Your task to perform on an android device: Go to notification settings Image 0: 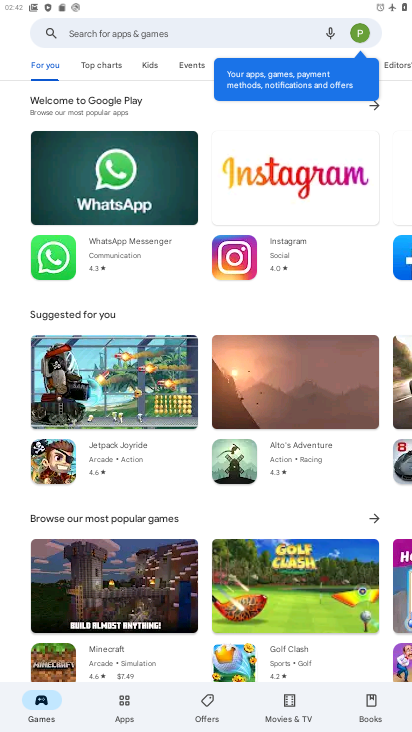
Step 0: press home button
Your task to perform on an android device: Go to notification settings Image 1: 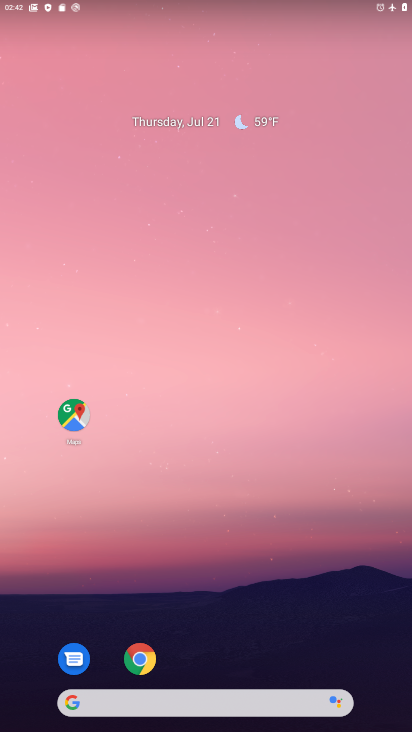
Step 1: drag from (290, 633) to (229, 54)
Your task to perform on an android device: Go to notification settings Image 2: 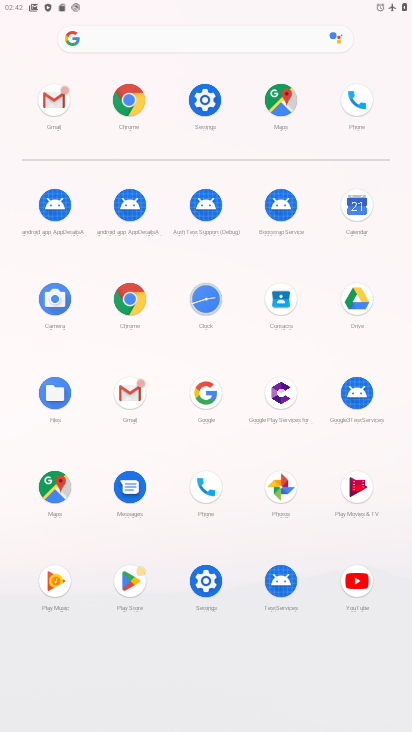
Step 2: click (211, 103)
Your task to perform on an android device: Go to notification settings Image 3: 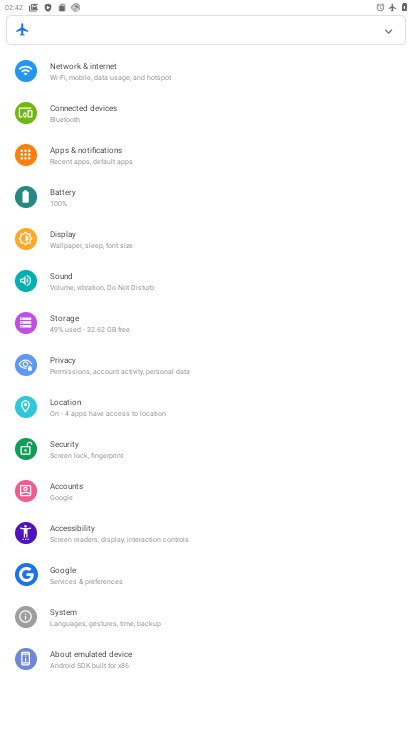
Step 3: click (97, 159)
Your task to perform on an android device: Go to notification settings Image 4: 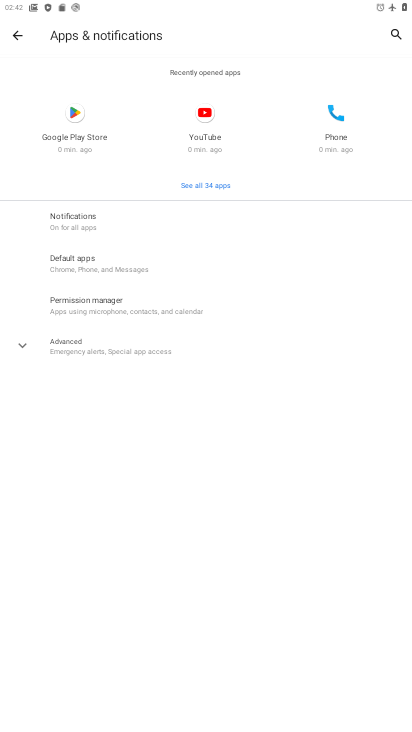
Step 4: click (75, 235)
Your task to perform on an android device: Go to notification settings Image 5: 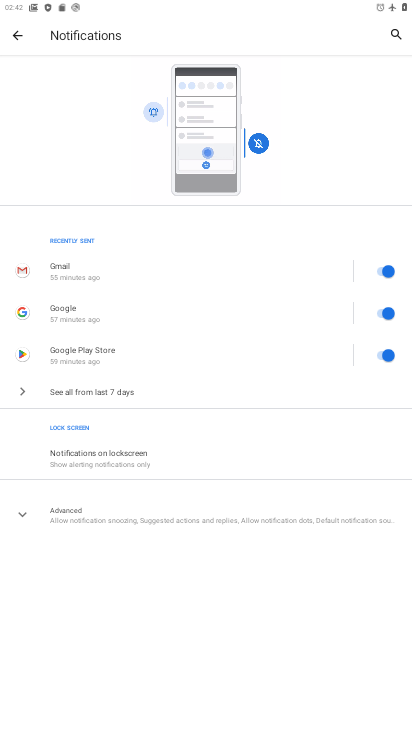
Step 5: task complete